Your task to perform on an android device: turn vacation reply on in the gmail app Image 0: 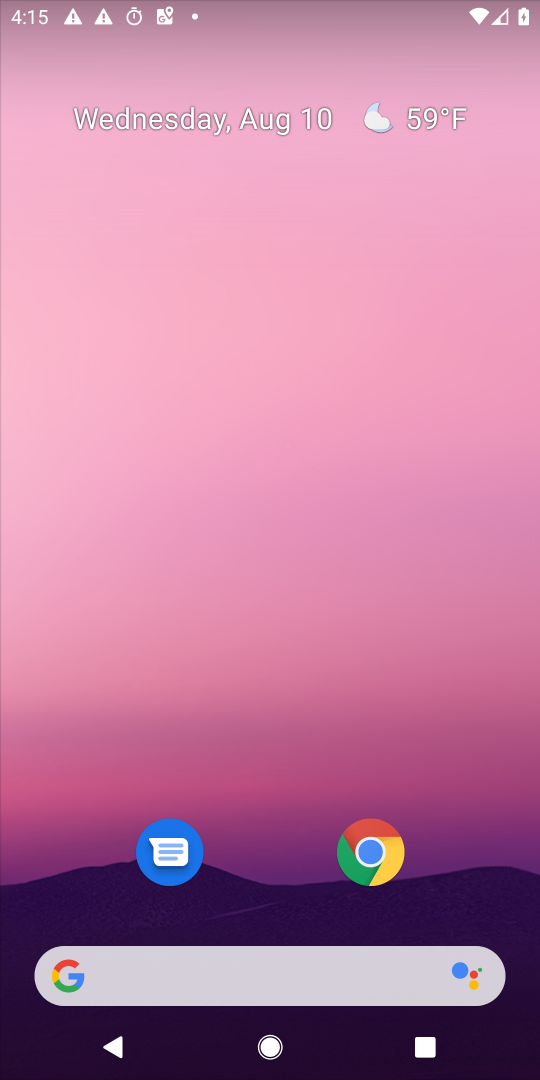
Step 0: drag from (445, 829) to (255, 4)
Your task to perform on an android device: turn vacation reply on in the gmail app Image 1: 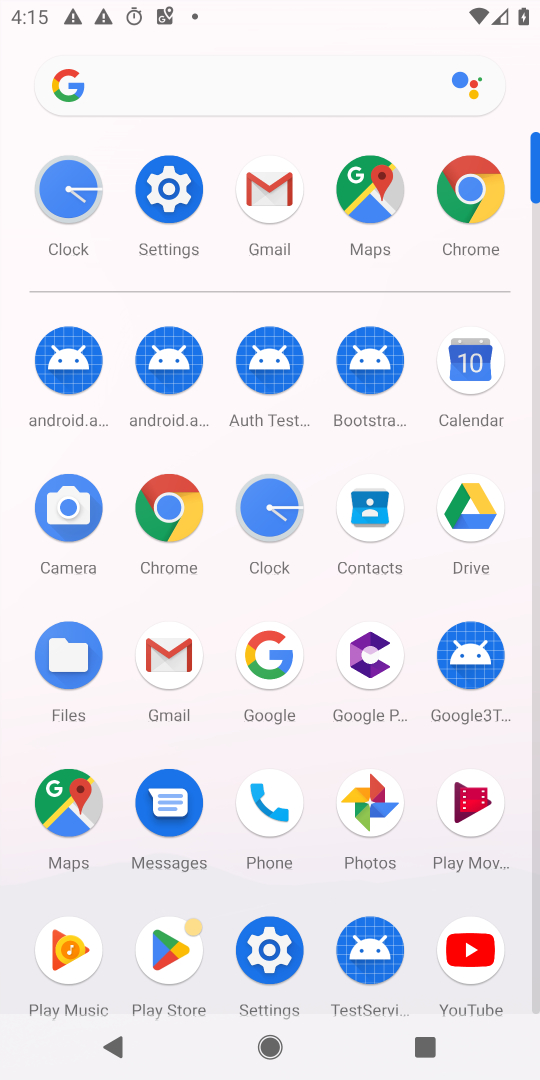
Step 1: click (174, 666)
Your task to perform on an android device: turn vacation reply on in the gmail app Image 2: 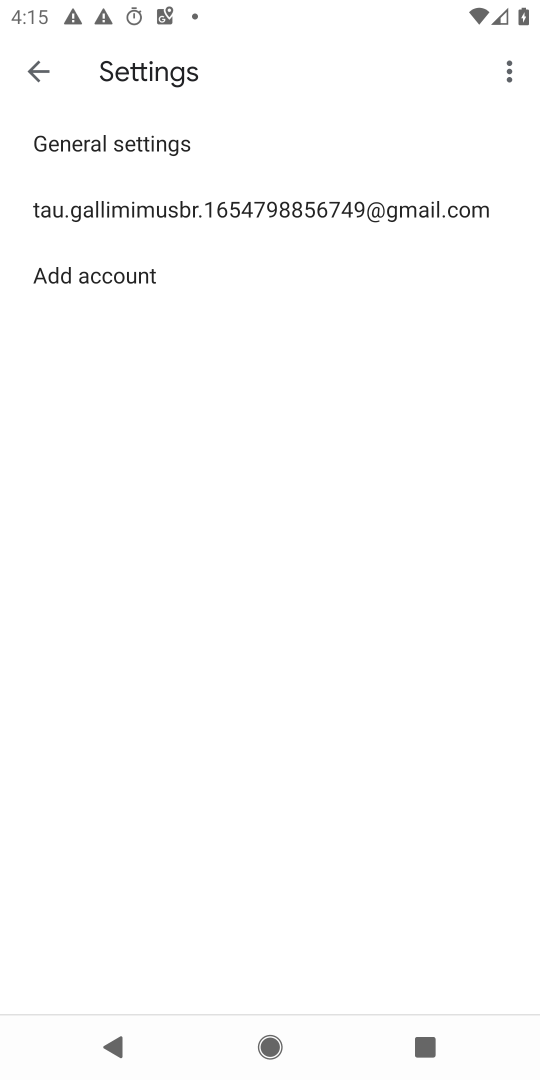
Step 2: click (38, 69)
Your task to perform on an android device: turn vacation reply on in the gmail app Image 3: 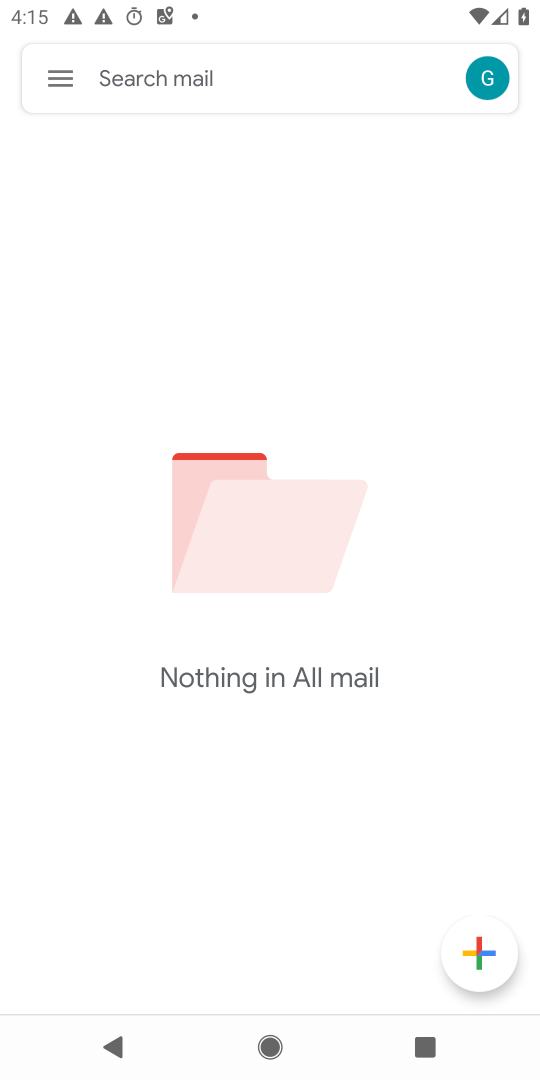
Step 3: click (38, 69)
Your task to perform on an android device: turn vacation reply on in the gmail app Image 4: 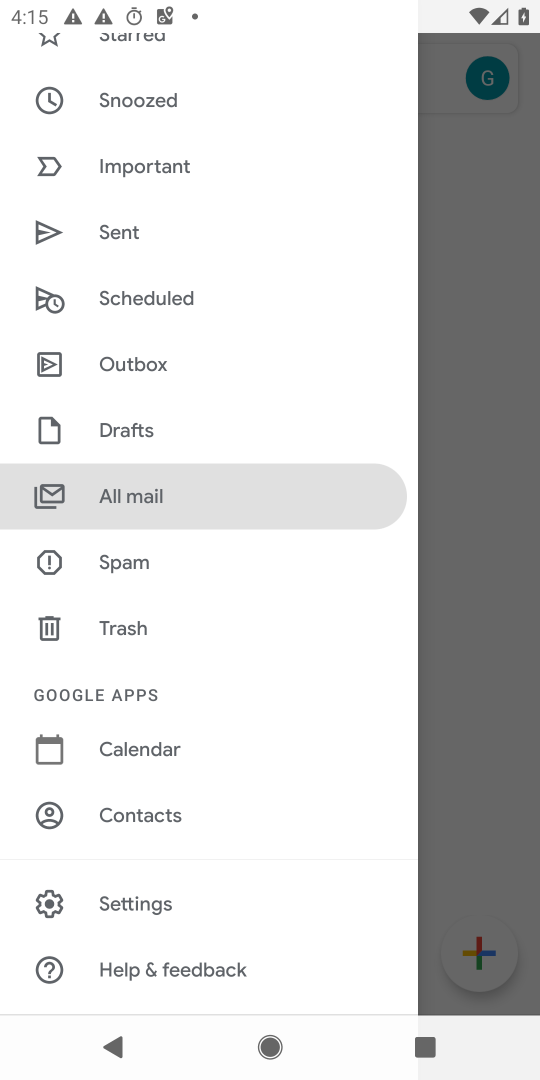
Step 4: click (200, 884)
Your task to perform on an android device: turn vacation reply on in the gmail app Image 5: 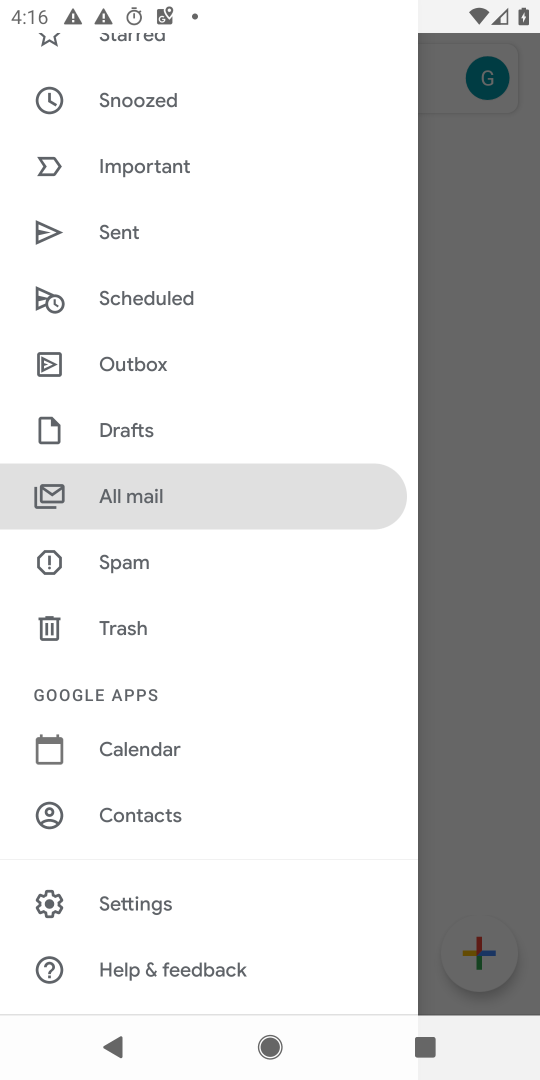
Step 5: click (139, 809)
Your task to perform on an android device: turn vacation reply on in the gmail app Image 6: 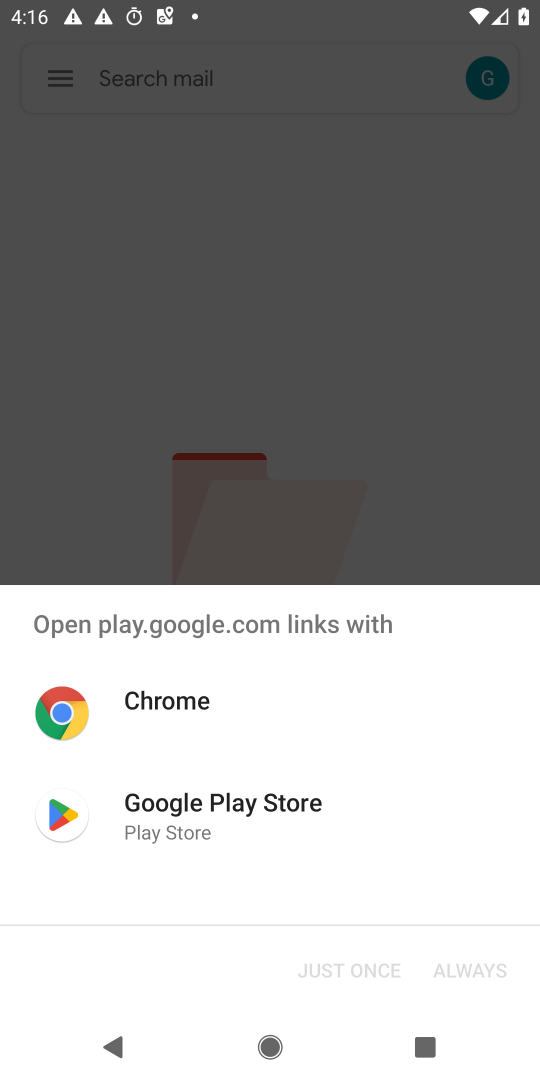
Step 6: press home button
Your task to perform on an android device: turn vacation reply on in the gmail app Image 7: 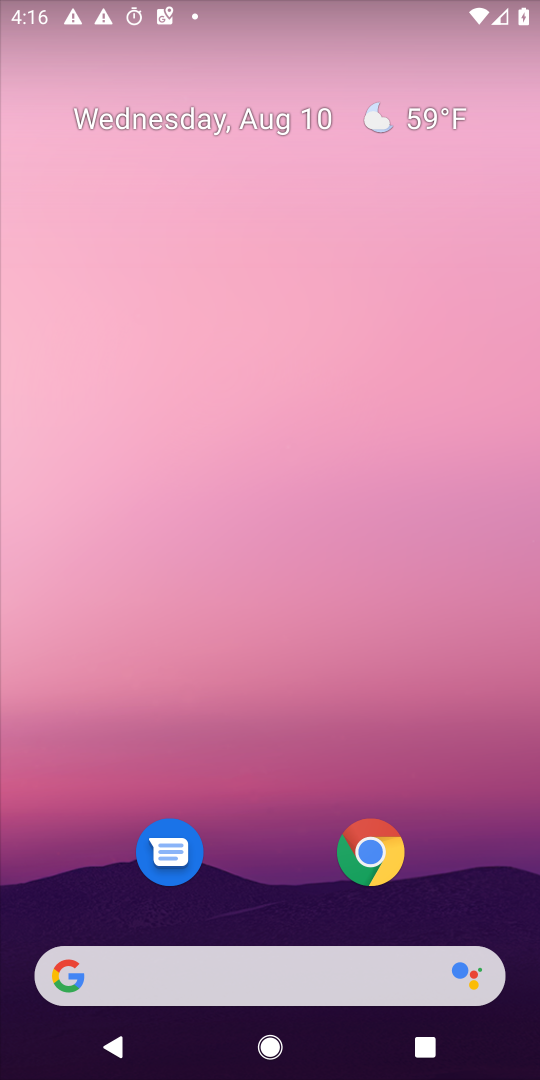
Step 7: drag from (426, 841) to (317, 281)
Your task to perform on an android device: turn vacation reply on in the gmail app Image 8: 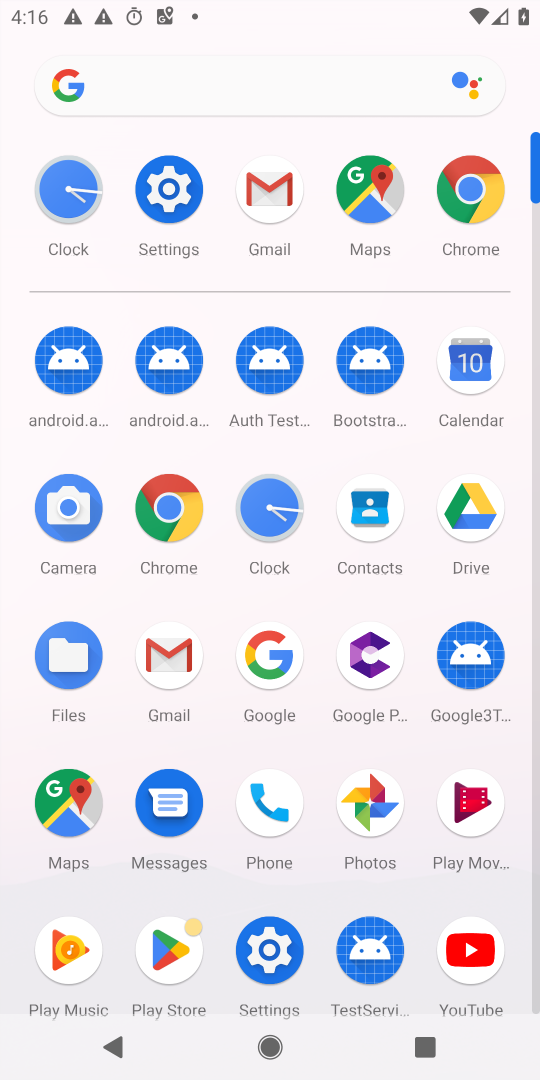
Step 8: click (165, 663)
Your task to perform on an android device: turn vacation reply on in the gmail app Image 9: 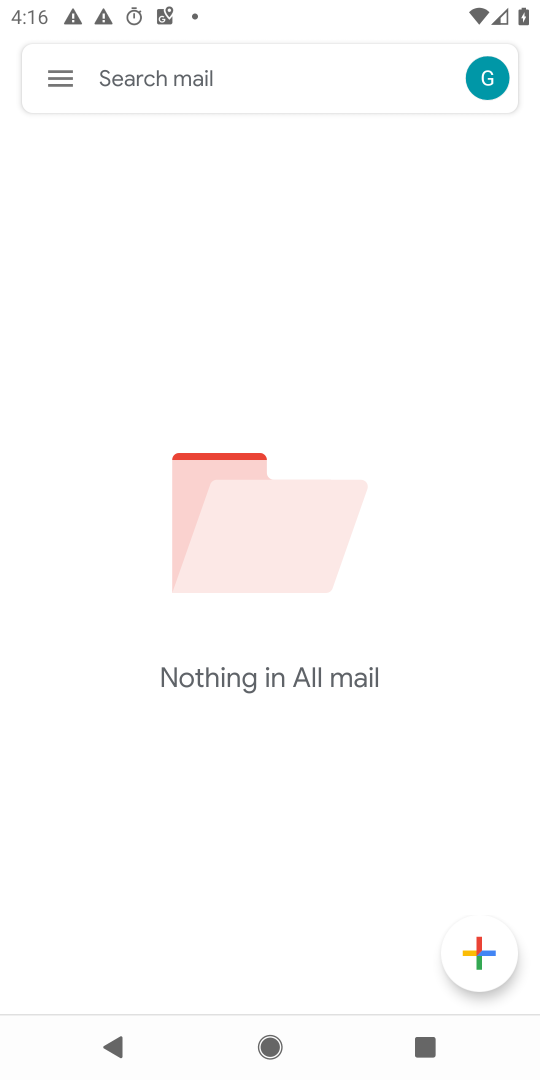
Step 9: click (47, 65)
Your task to perform on an android device: turn vacation reply on in the gmail app Image 10: 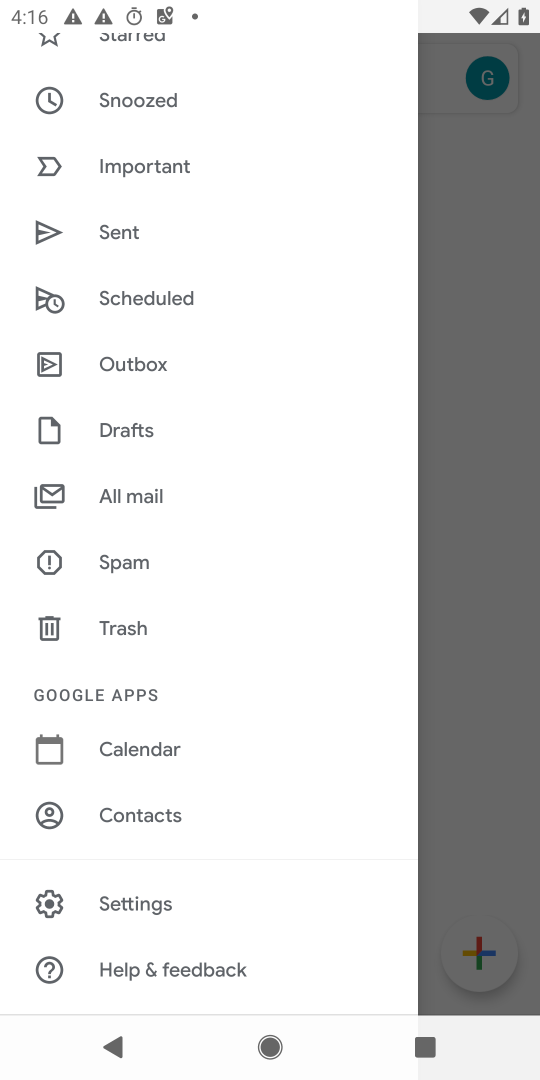
Step 10: click (144, 891)
Your task to perform on an android device: turn vacation reply on in the gmail app Image 11: 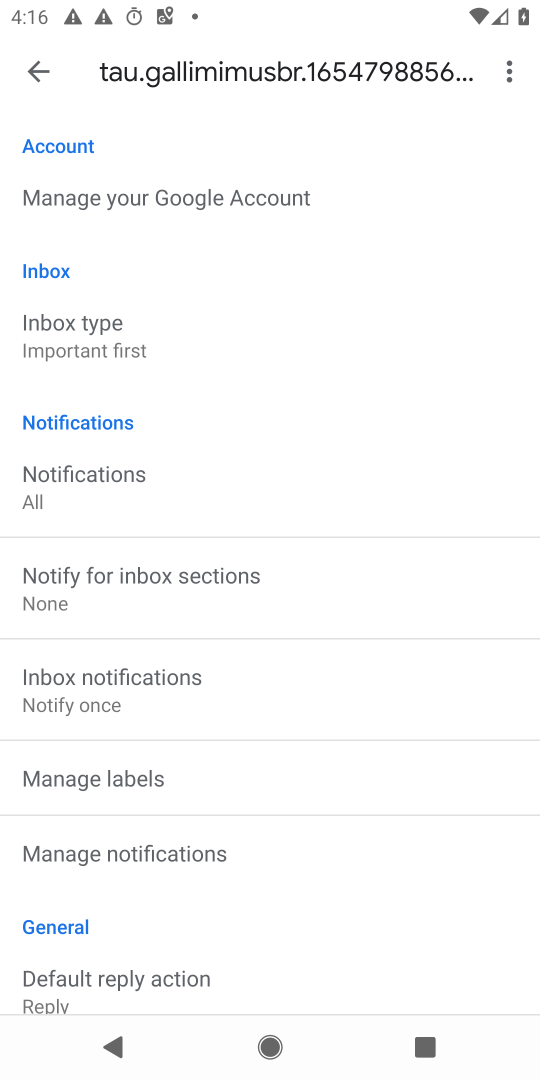
Step 11: click (125, 350)
Your task to perform on an android device: turn vacation reply on in the gmail app Image 12: 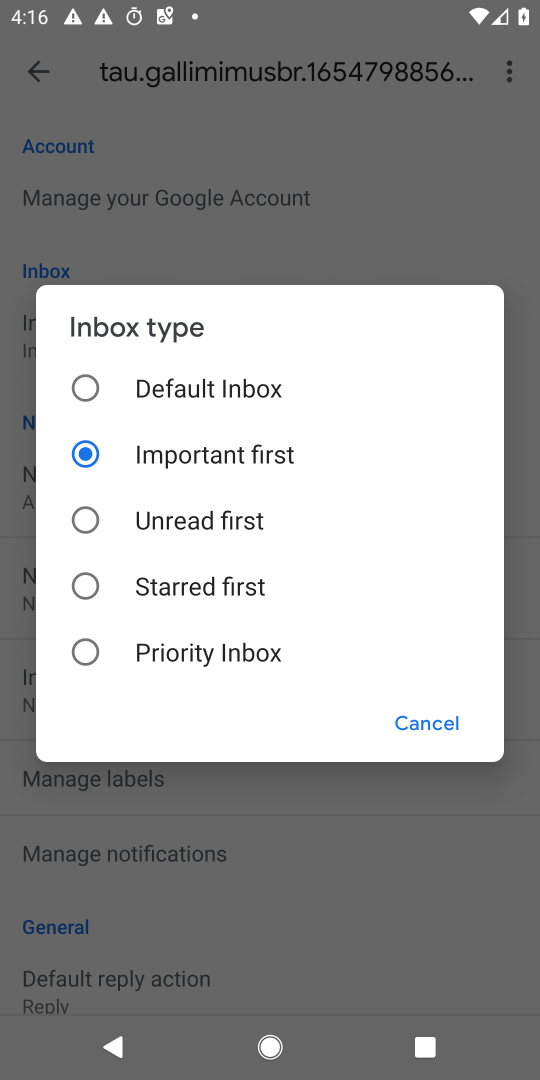
Step 12: click (351, 682)
Your task to perform on an android device: turn vacation reply on in the gmail app Image 13: 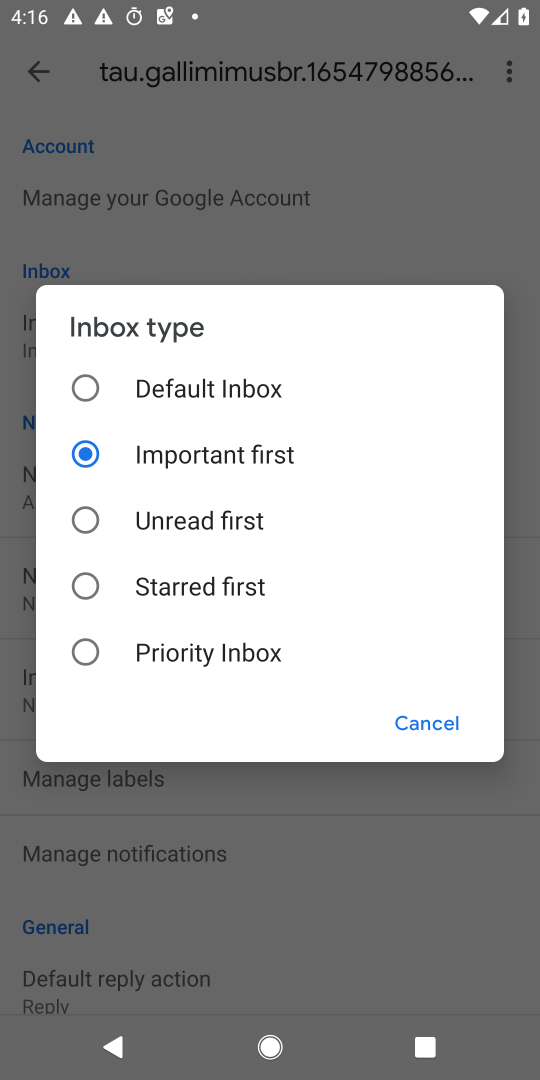
Step 13: click (390, 697)
Your task to perform on an android device: turn vacation reply on in the gmail app Image 14: 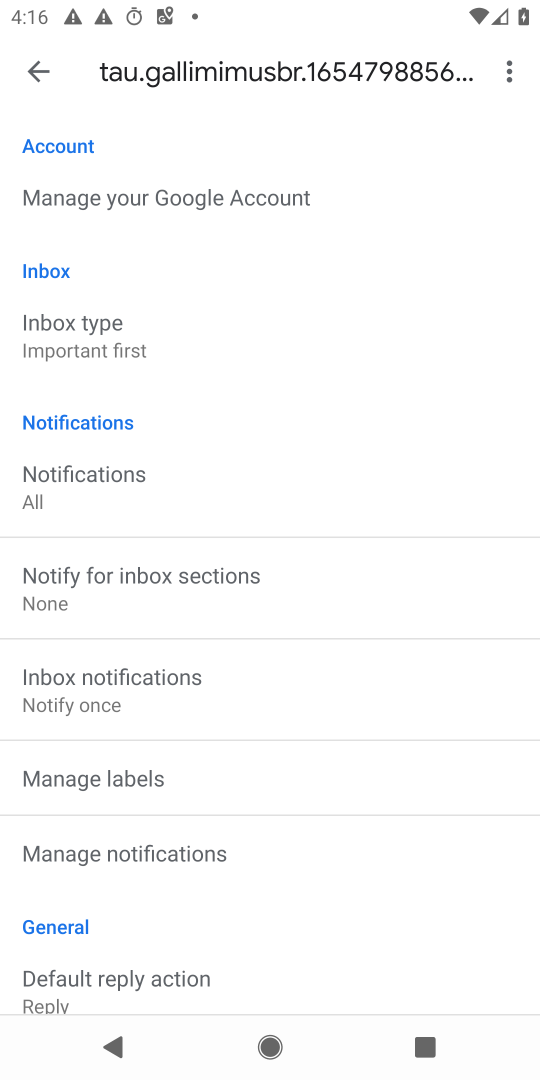
Step 14: drag from (407, 866) to (352, 353)
Your task to perform on an android device: turn vacation reply on in the gmail app Image 15: 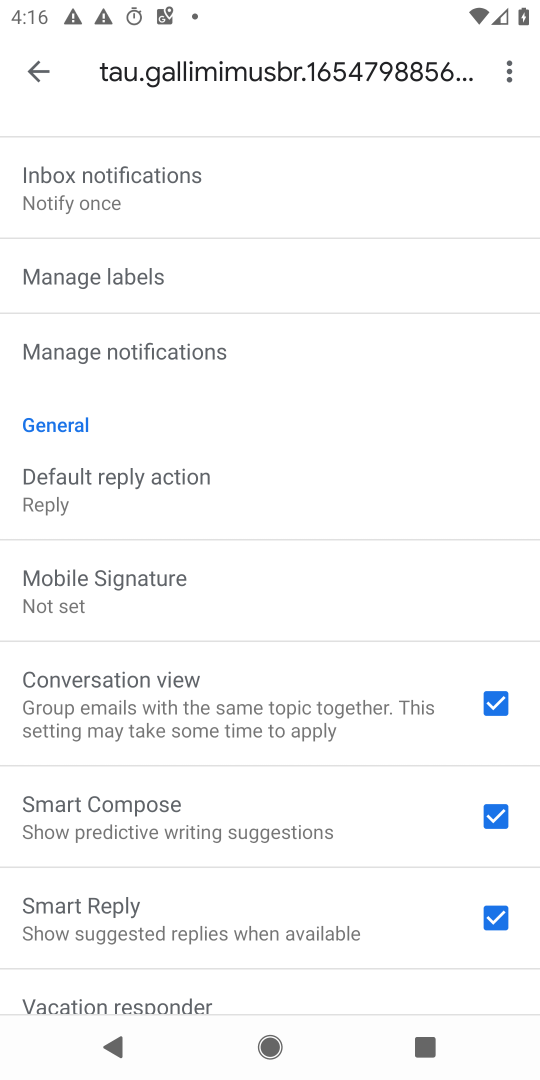
Step 15: drag from (432, 676) to (416, 499)
Your task to perform on an android device: turn vacation reply on in the gmail app Image 16: 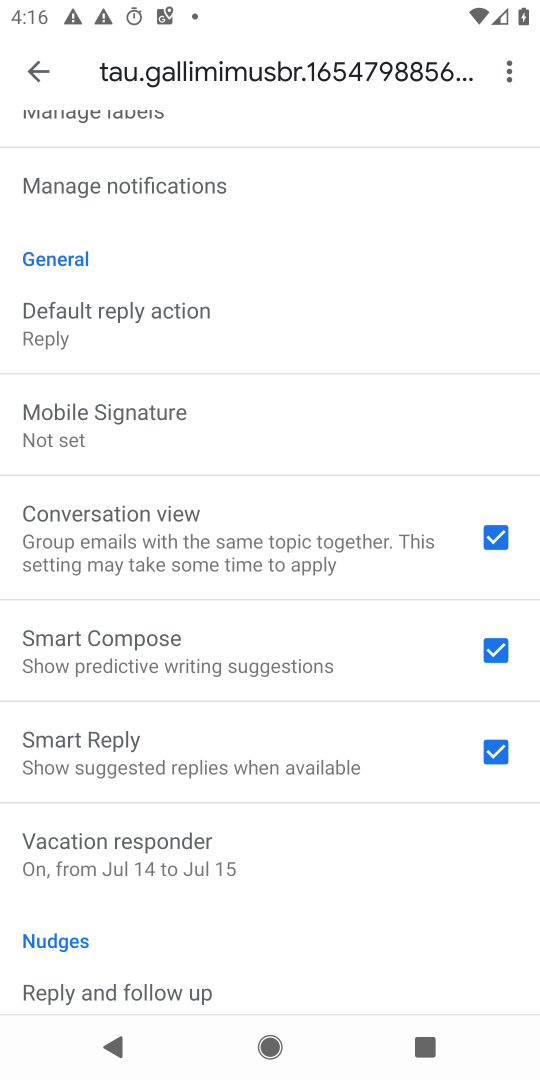
Step 16: drag from (429, 951) to (306, 403)
Your task to perform on an android device: turn vacation reply on in the gmail app Image 17: 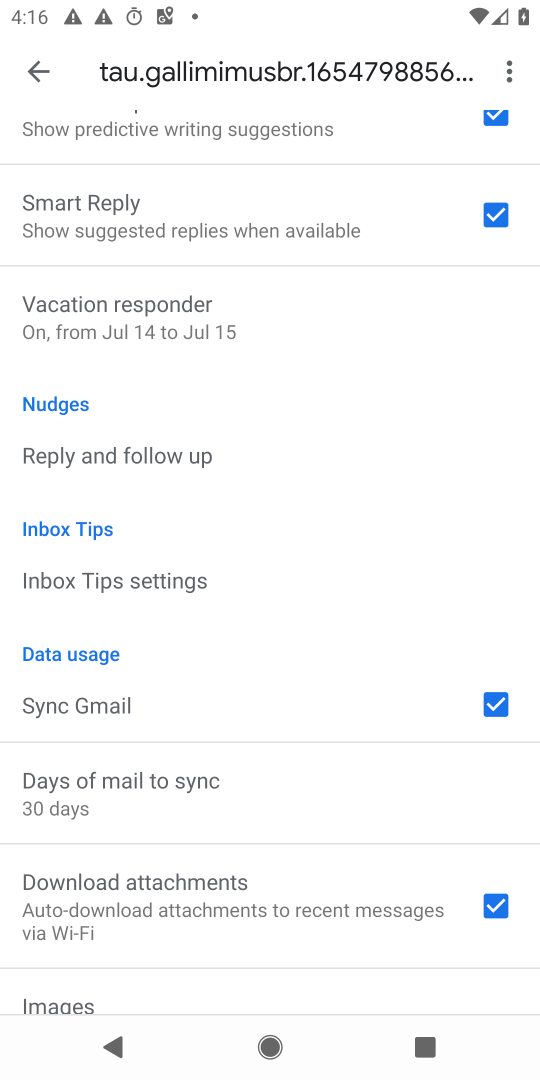
Step 17: drag from (416, 828) to (298, 265)
Your task to perform on an android device: turn vacation reply on in the gmail app Image 18: 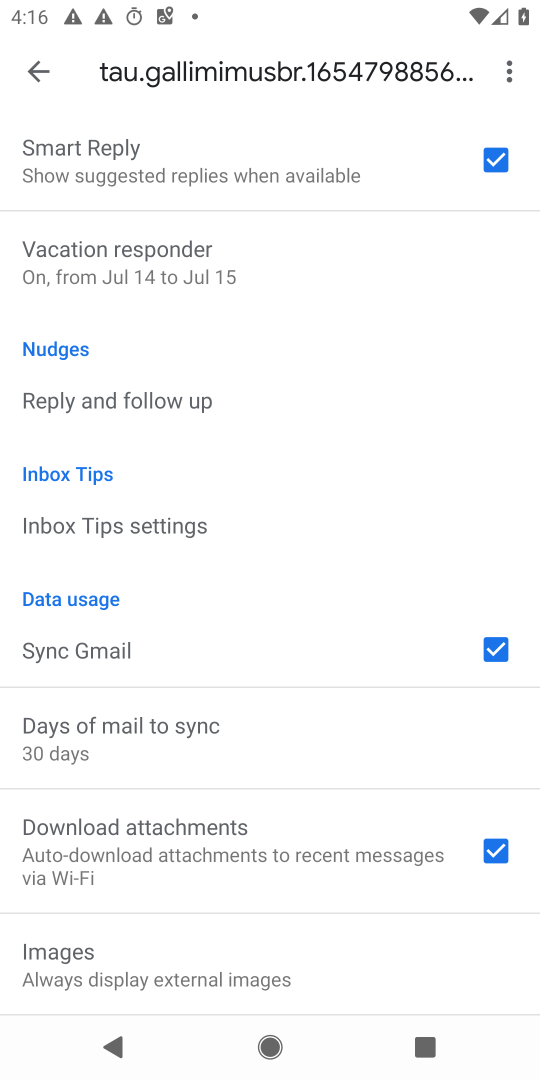
Step 18: click (171, 262)
Your task to perform on an android device: turn vacation reply on in the gmail app Image 19: 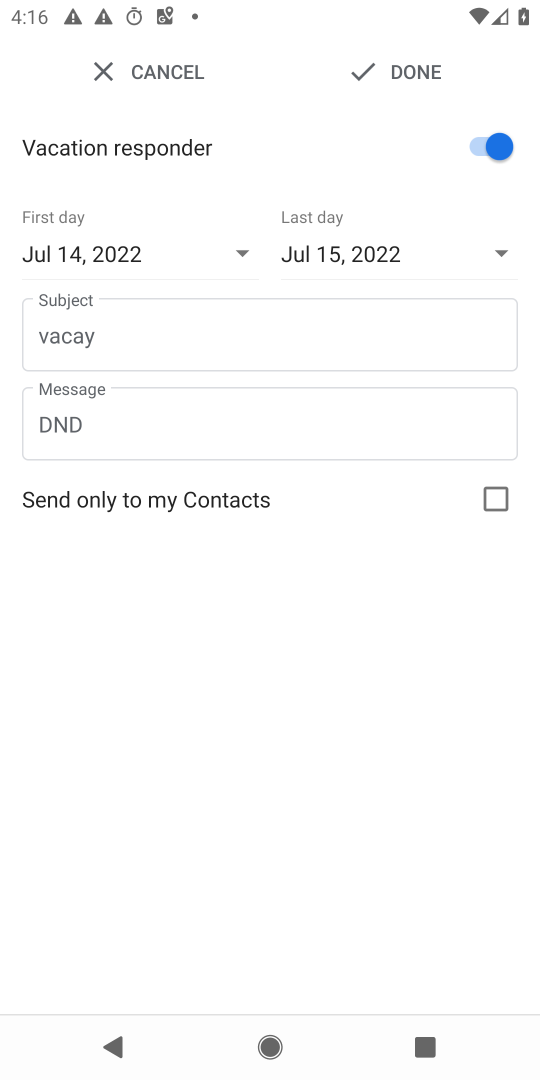
Step 19: task complete